Your task to perform on an android device: Go to Amazon Image 0: 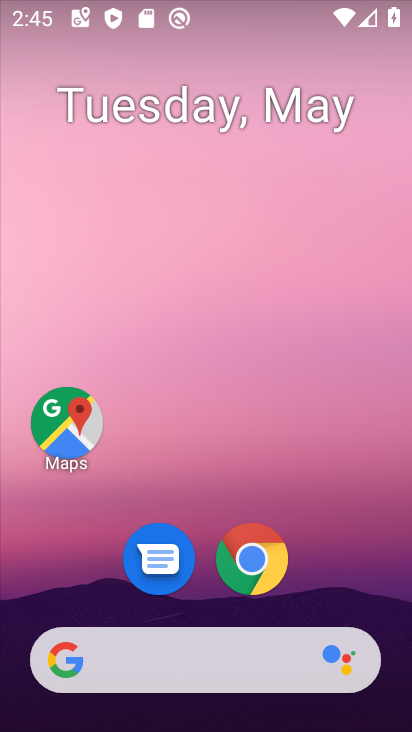
Step 0: drag from (182, 622) to (291, 89)
Your task to perform on an android device: Go to Amazon Image 1: 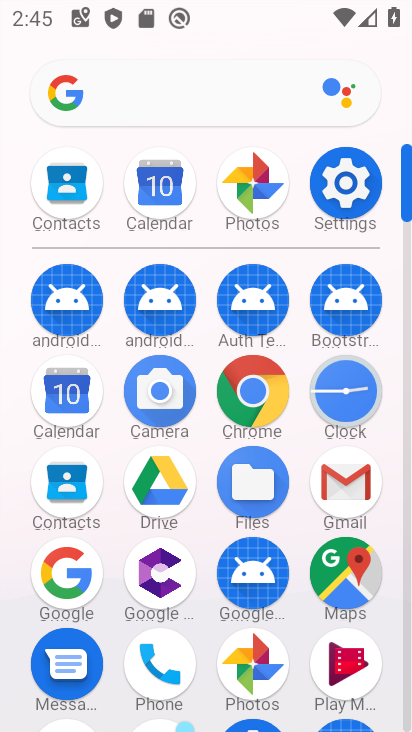
Step 1: click (251, 411)
Your task to perform on an android device: Go to Amazon Image 2: 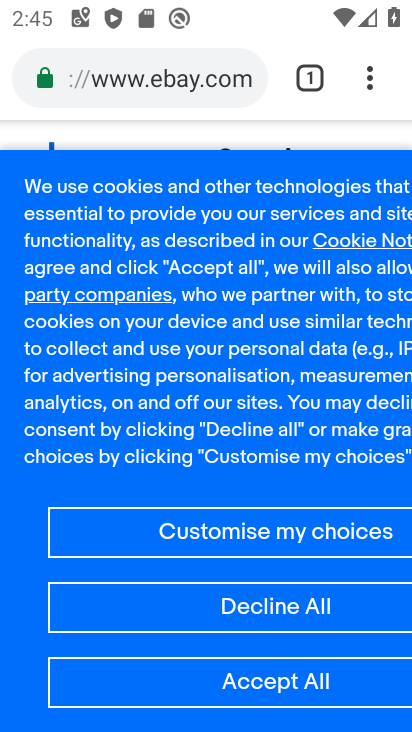
Step 2: drag from (368, 89) to (311, 141)
Your task to perform on an android device: Go to Amazon Image 3: 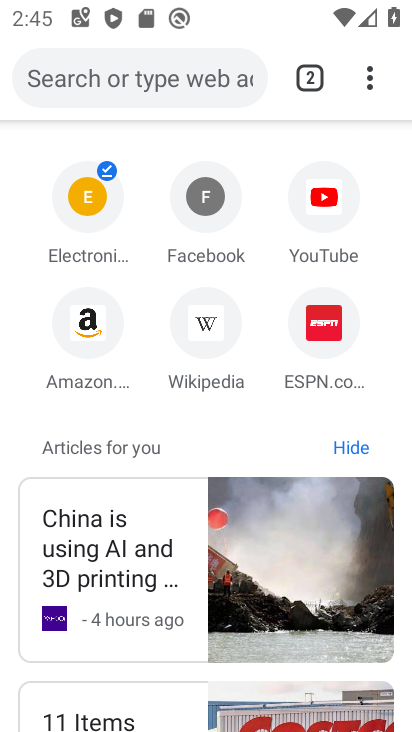
Step 3: click (79, 336)
Your task to perform on an android device: Go to Amazon Image 4: 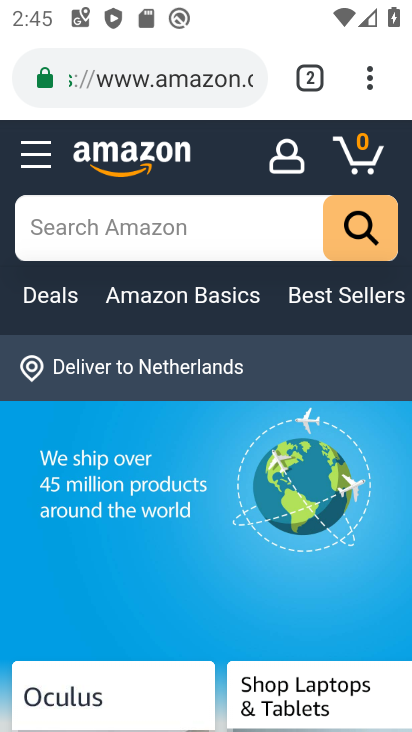
Step 4: task complete